Your task to perform on an android device: Go to battery settings Image 0: 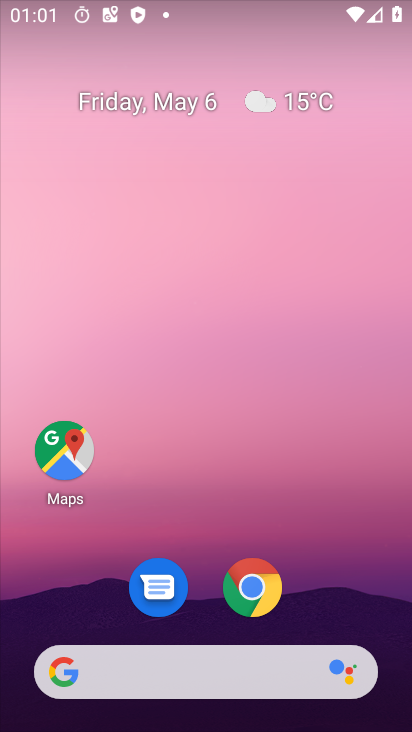
Step 0: drag from (380, 642) to (353, 211)
Your task to perform on an android device: Go to battery settings Image 1: 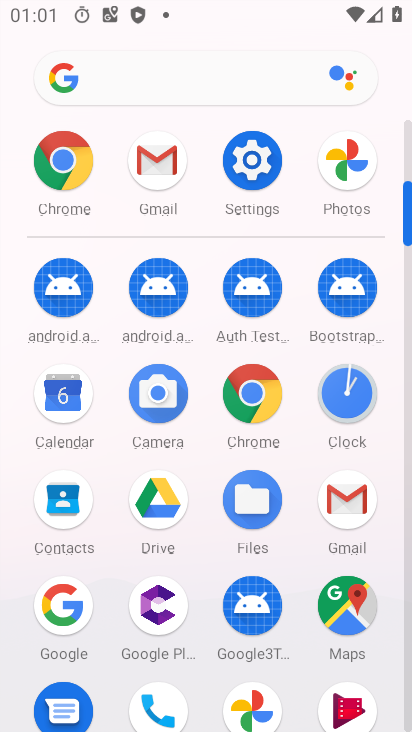
Step 1: click (250, 174)
Your task to perform on an android device: Go to battery settings Image 2: 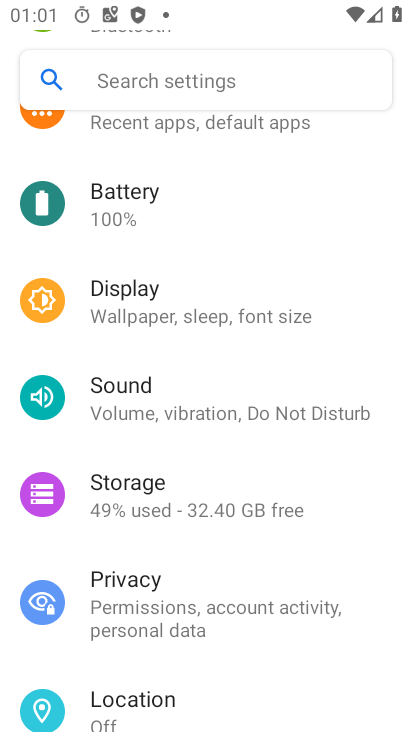
Step 2: drag from (301, 241) to (279, 606)
Your task to perform on an android device: Go to battery settings Image 3: 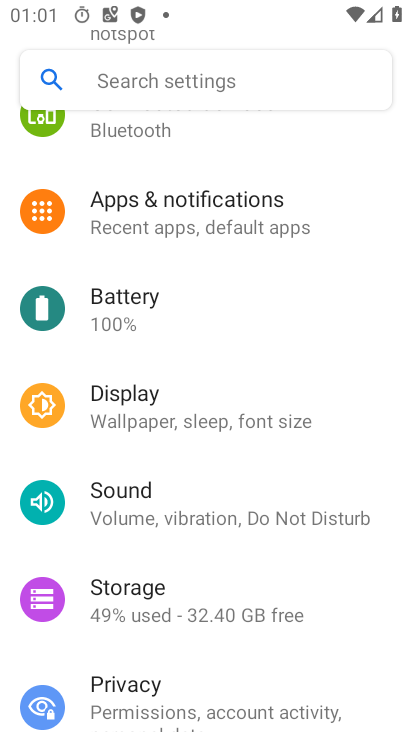
Step 3: drag from (338, 303) to (331, 553)
Your task to perform on an android device: Go to battery settings Image 4: 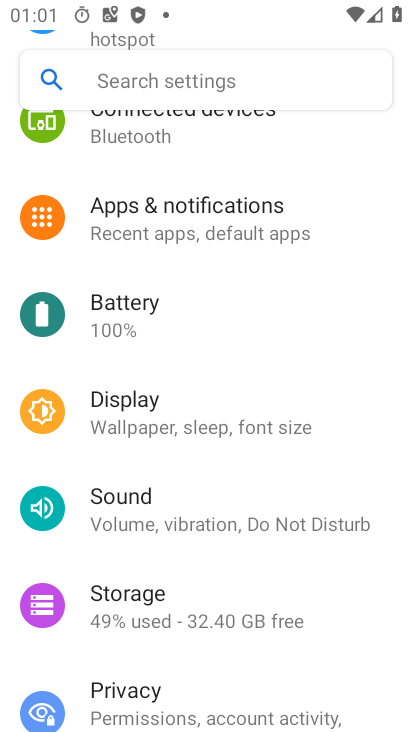
Step 4: click (63, 308)
Your task to perform on an android device: Go to battery settings Image 5: 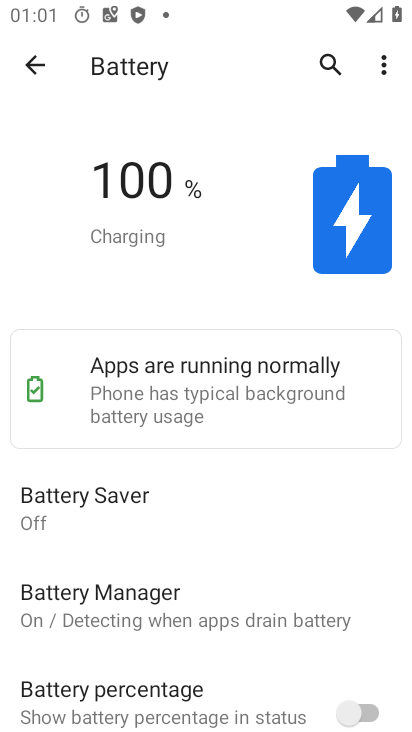
Step 5: task complete